Your task to perform on an android device: turn on showing notifications on the lock screen Image 0: 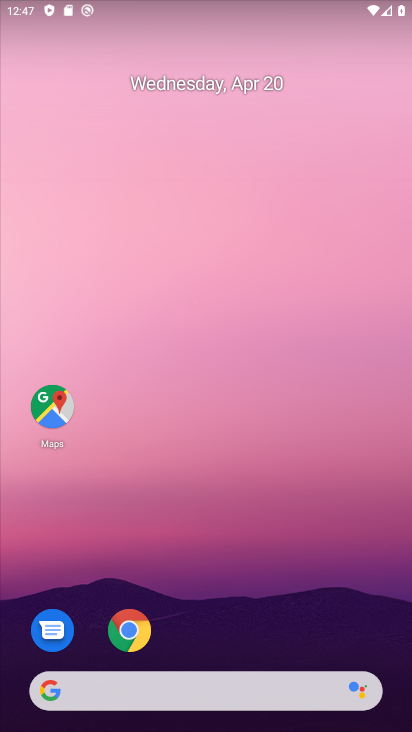
Step 0: drag from (207, 589) to (226, 139)
Your task to perform on an android device: turn on showing notifications on the lock screen Image 1: 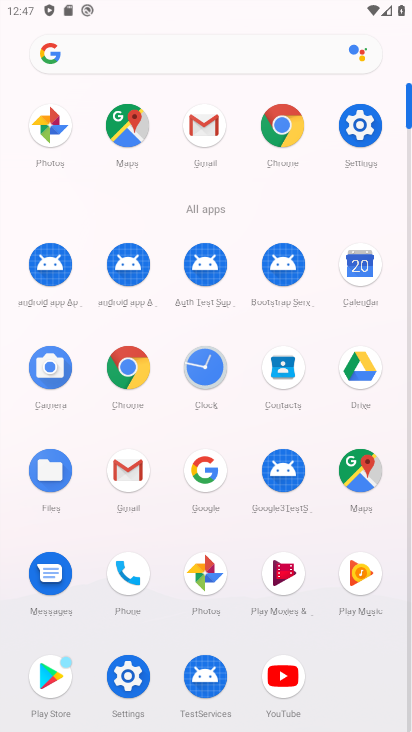
Step 1: click (365, 127)
Your task to perform on an android device: turn on showing notifications on the lock screen Image 2: 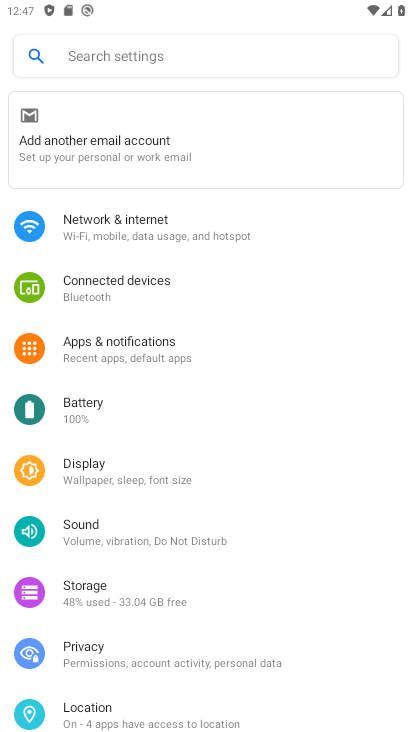
Step 2: click (151, 345)
Your task to perform on an android device: turn on showing notifications on the lock screen Image 3: 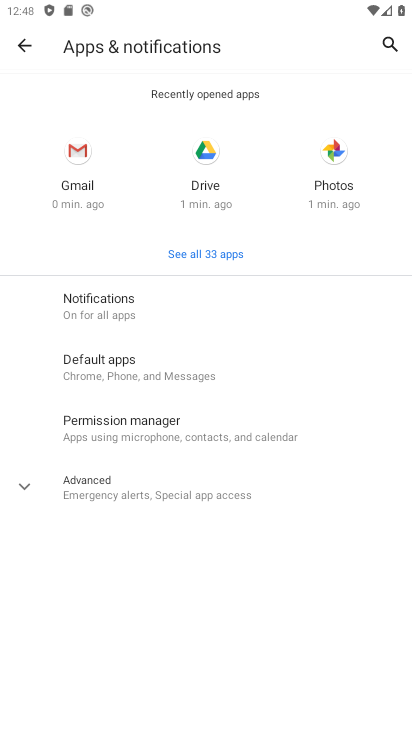
Step 3: click (196, 314)
Your task to perform on an android device: turn on showing notifications on the lock screen Image 4: 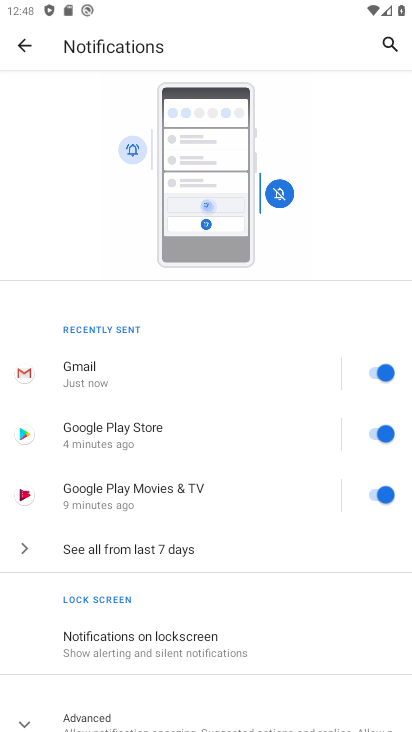
Step 4: click (217, 627)
Your task to perform on an android device: turn on showing notifications on the lock screen Image 5: 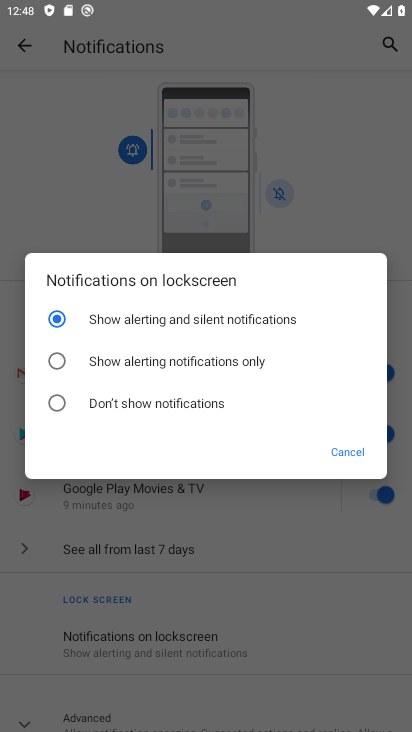
Step 5: task complete